Your task to perform on an android device: read, delete, or share a saved page in the chrome app Image 0: 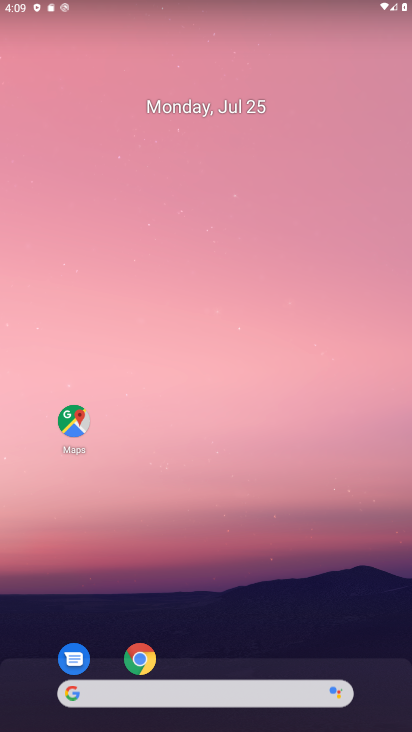
Step 0: drag from (275, 622) to (319, 8)
Your task to perform on an android device: read, delete, or share a saved page in the chrome app Image 1: 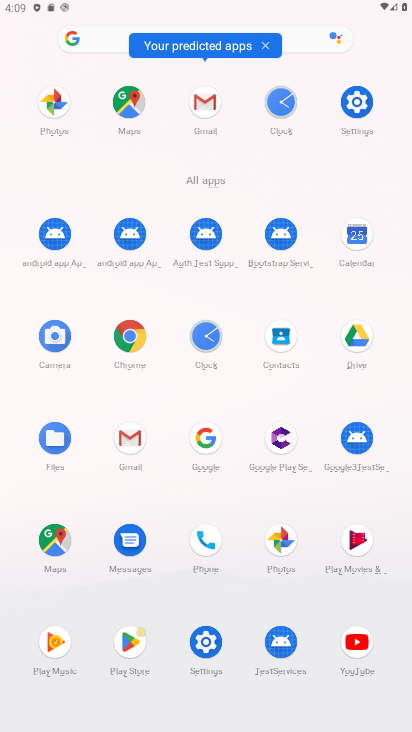
Step 1: click (126, 332)
Your task to perform on an android device: read, delete, or share a saved page in the chrome app Image 2: 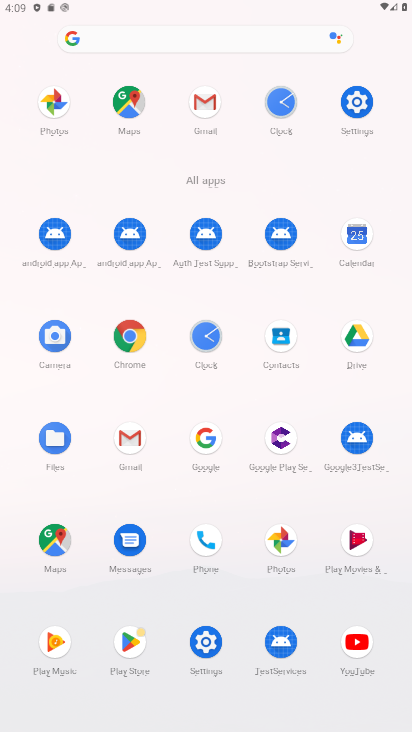
Step 2: click (126, 332)
Your task to perform on an android device: read, delete, or share a saved page in the chrome app Image 3: 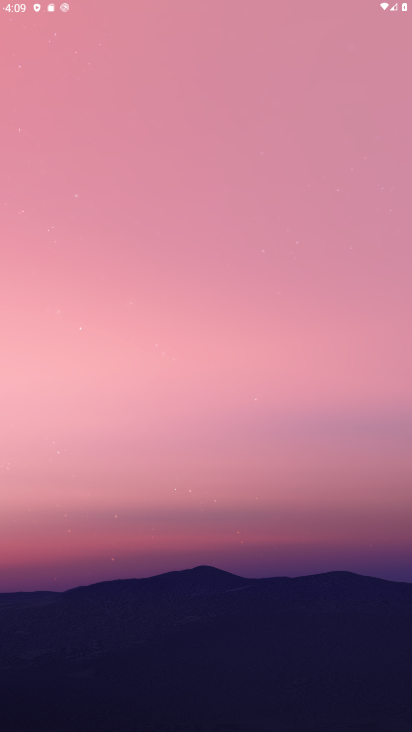
Step 3: click (137, 342)
Your task to perform on an android device: read, delete, or share a saved page in the chrome app Image 4: 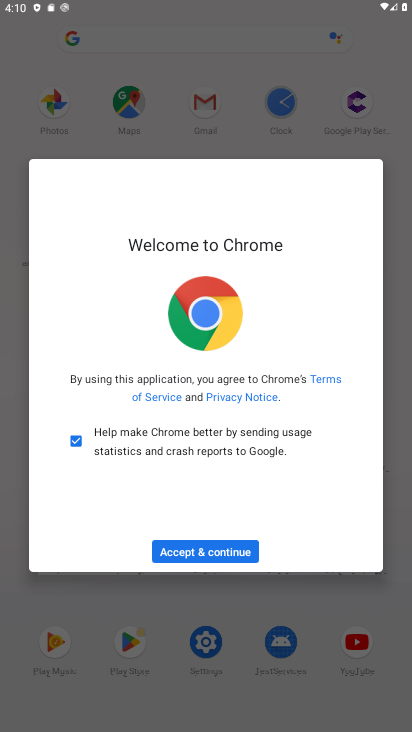
Step 4: click (209, 557)
Your task to perform on an android device: read, delete, or share a saved page in the chrome app Image 5: 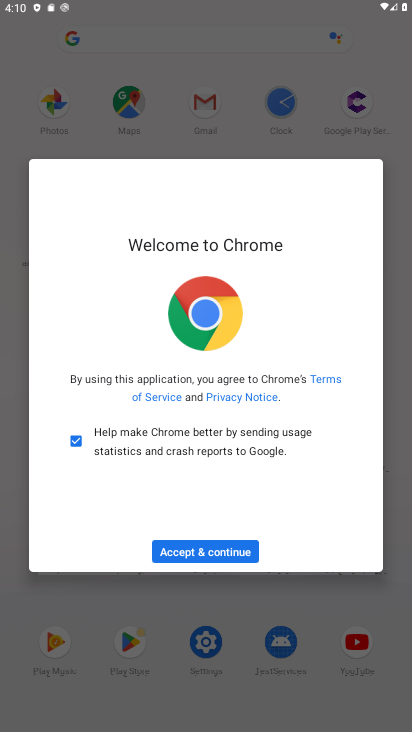
Step 5: click (213, 548)
Your task to perform on an android device: read, delete, or share a saved page in the chrome app Image 6: 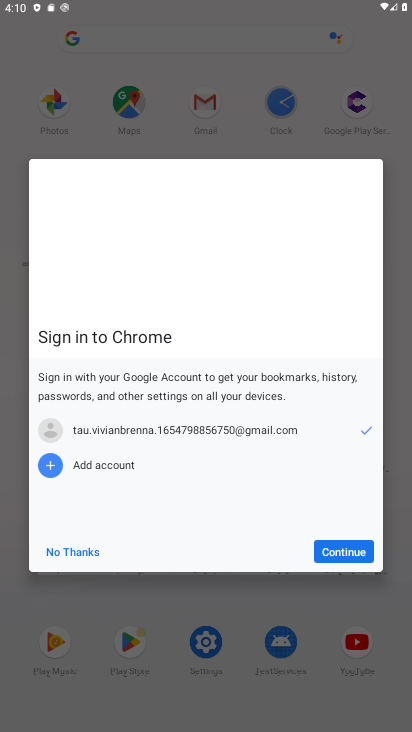
Step 6: click (227, 546)
Your task to perform on an android device: read, delete, or share a saved page in the chrome app Image 7: 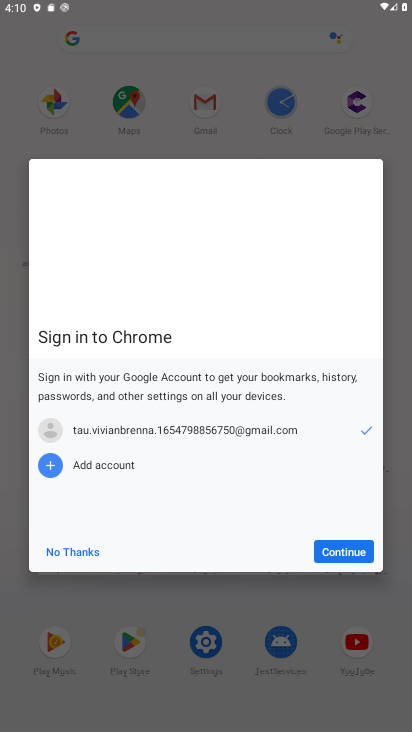
Step 7: click (58, 553)
Your task to perform on an android device: read, delete, or share a saved page in the chrome app Image 8: 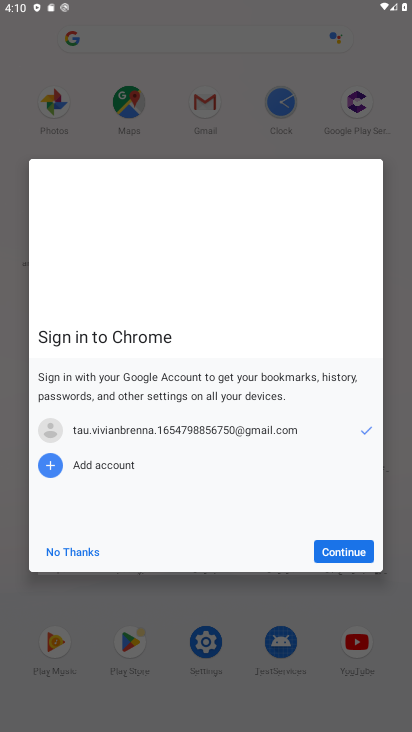
Step 8: click (71, 542)
Your task to perform on an android device: read, delete, or share a saved page in the chrome app Image 9: 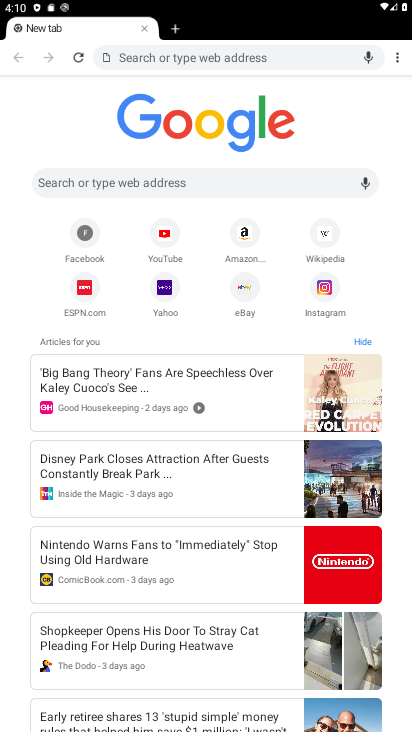
Step 9: drag from (401, 54) to (283, 209)
Your task to perform on an android device: read, delete, or share a saved page in the chrome app Image 10: 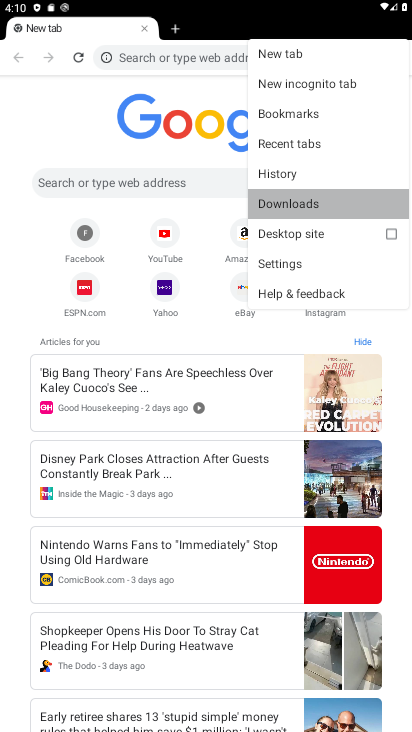
Step 10: click (283, 209)
Your task to perform on an android device: read, delete, or share a saved page in the chrome app Image 11: 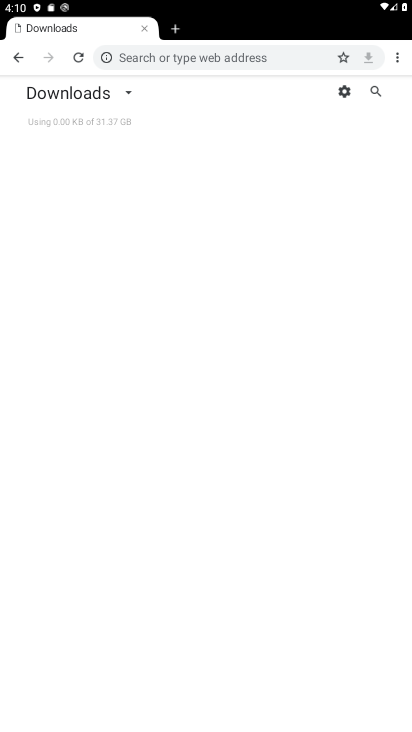
Step 11: click (128, 87)
Your task to perform on an android device: read, delete, or share a saved page in the chrome app Image 12: 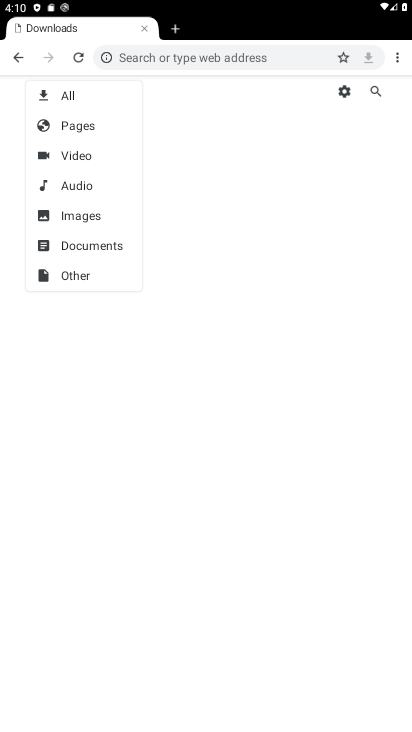
Step 12: click (87, 116)
Your task to perform on an android device: read, delete, or share a saved page in the chrome app Image 13: 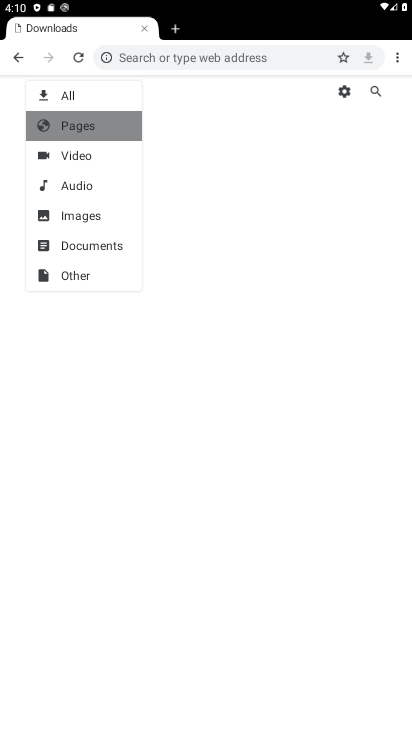
Step 13: click (88, 123)
Your task to perform on an android device: read, delete, or share a saved page in the chrome app Image 14: 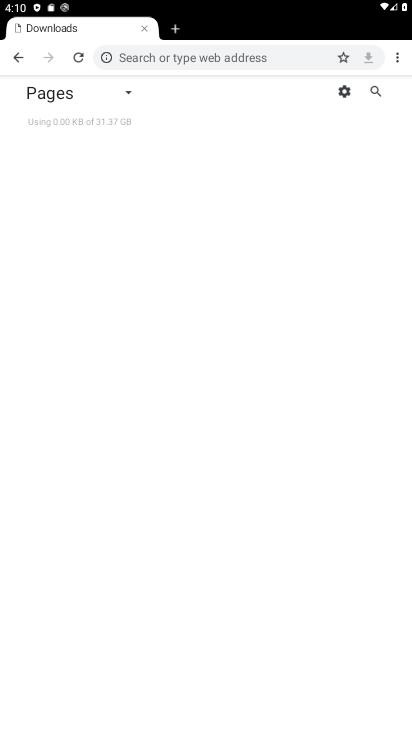
Step 14: task complete